Your task to perform on an android device: Add "razer deathadder" to the cart on amazon.com Image 0: 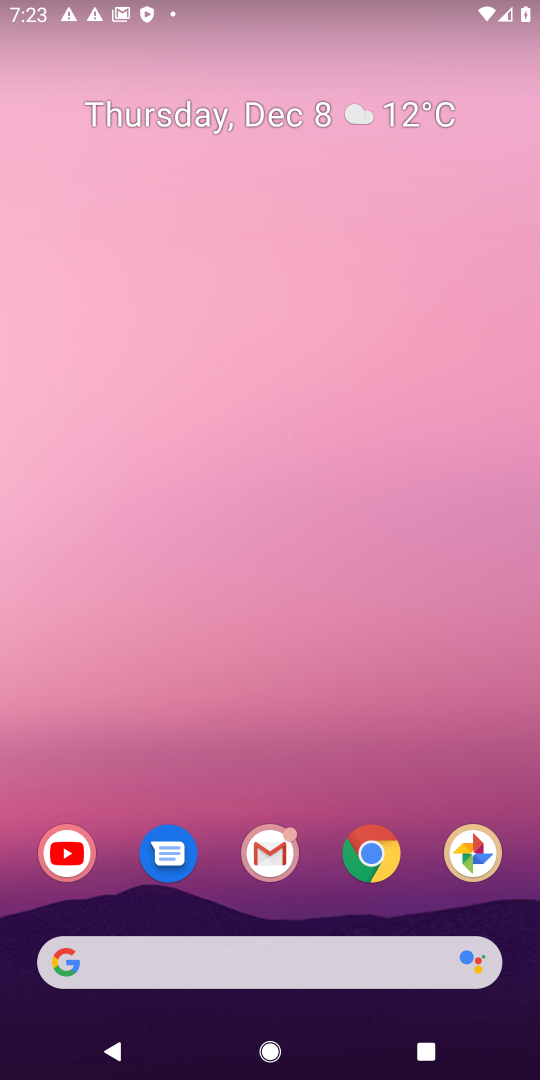
Step 0: click (174, 957)
Your task to perform on an android device: Add "razer deathadder" to the cart on amazon.com Image 1: 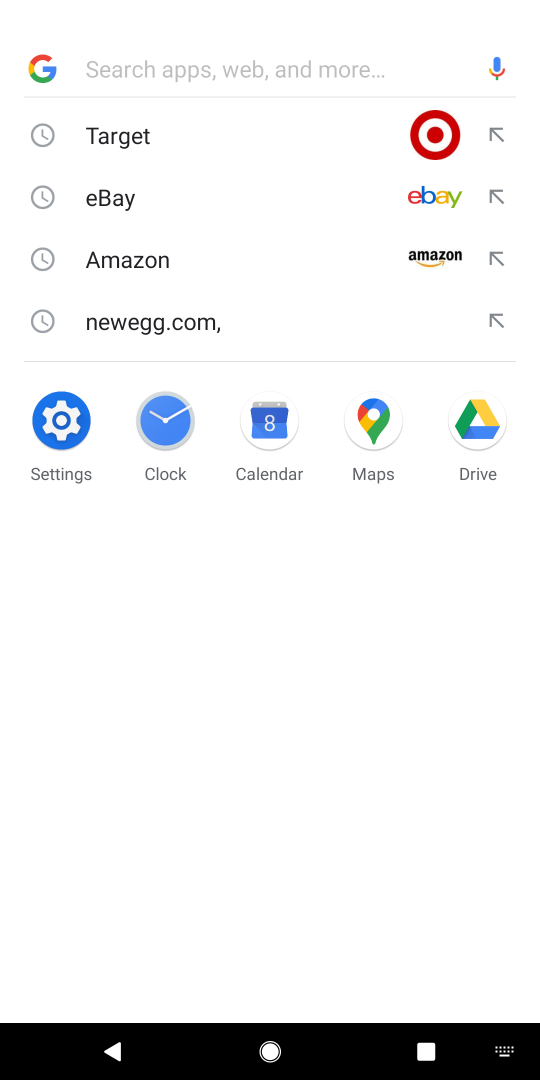
Step 1: click (122, 259)
Your task to perform on an android device: Add "razer deathadder" to the cart on amazon.com Image 2: 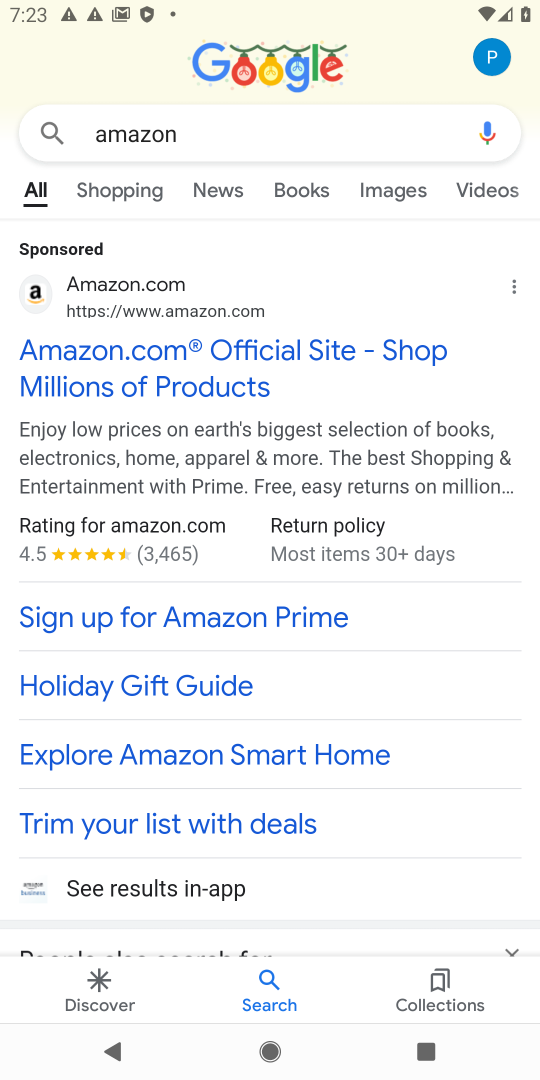
Step 2: click (142, 278)
Your task to perform on an android device: Add "razer deathadder" to the cart on amazon.com Image 3: 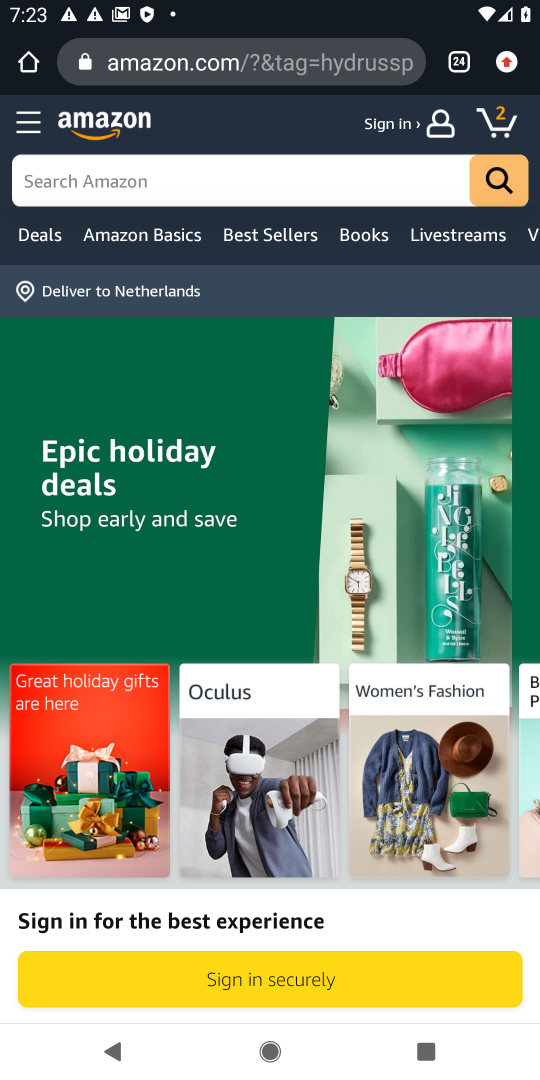
Step 3: click (250, 181)
Your task to perform on an android device: Add "razer deathadder" to the cart on amazon.com Image 4: 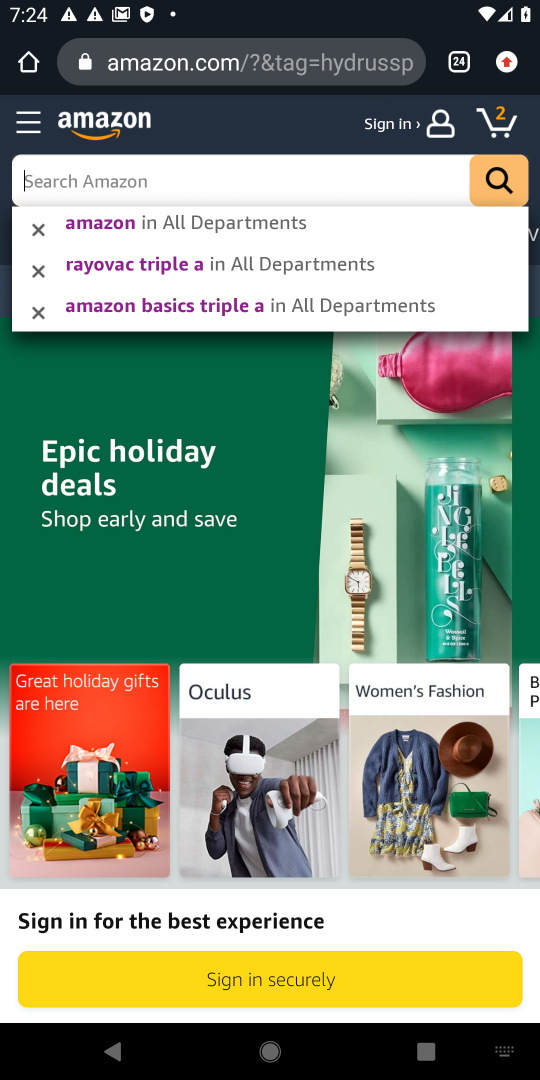
Step 4: type "razer deathadder"
Your task to perform on an android device: Add "razer deathadder" to the cart on amazon.com Image 5: 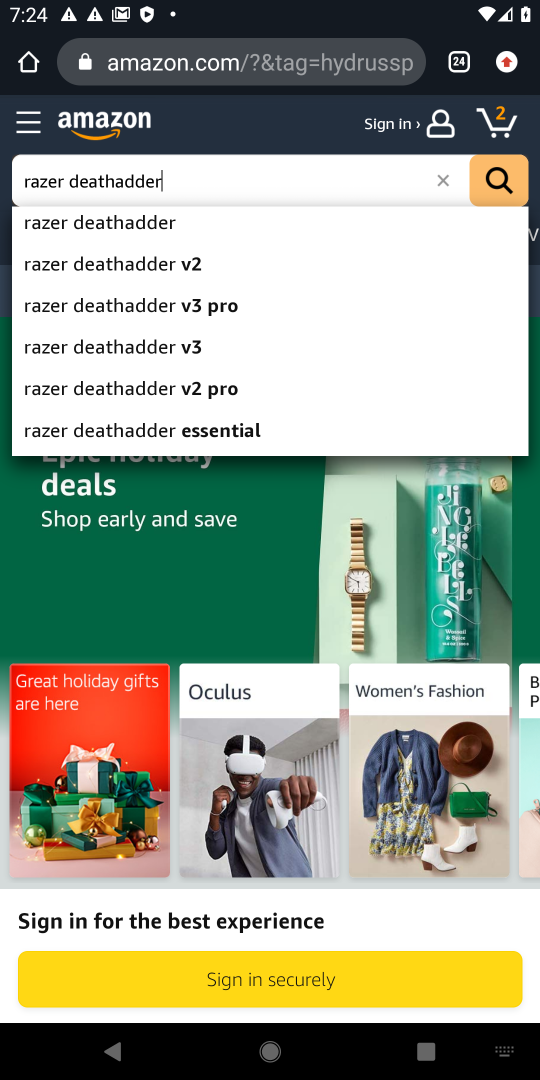
Step 5: click (115, 228)
Your task to perform on an android device: Add "razer deathadder" to the cart on amazon.com Image 6: 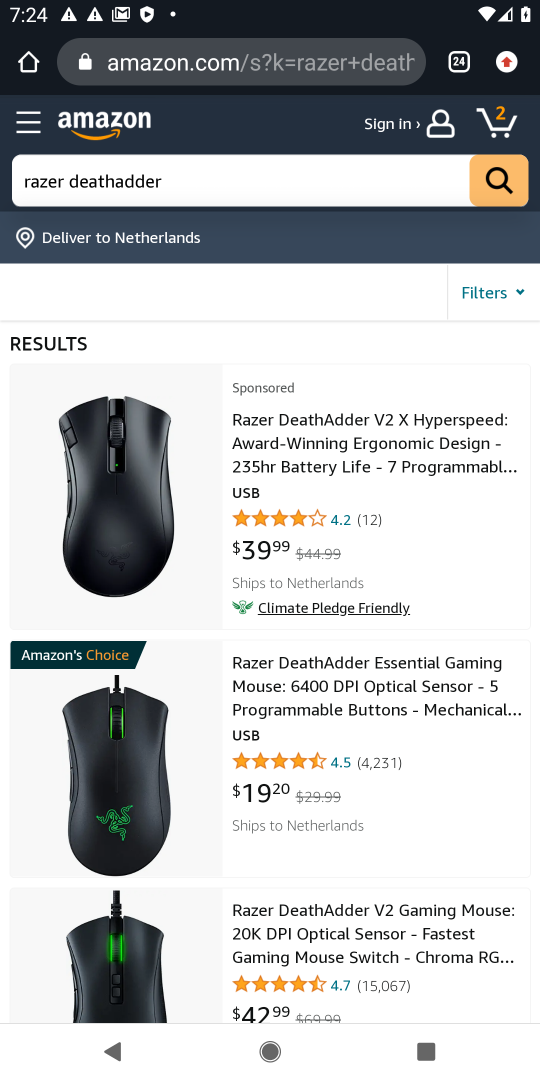
Step 6: click (286, 436)
Your task to perform on an android device: Add "razer deathadder" to the cart on amazon.com Image 7: 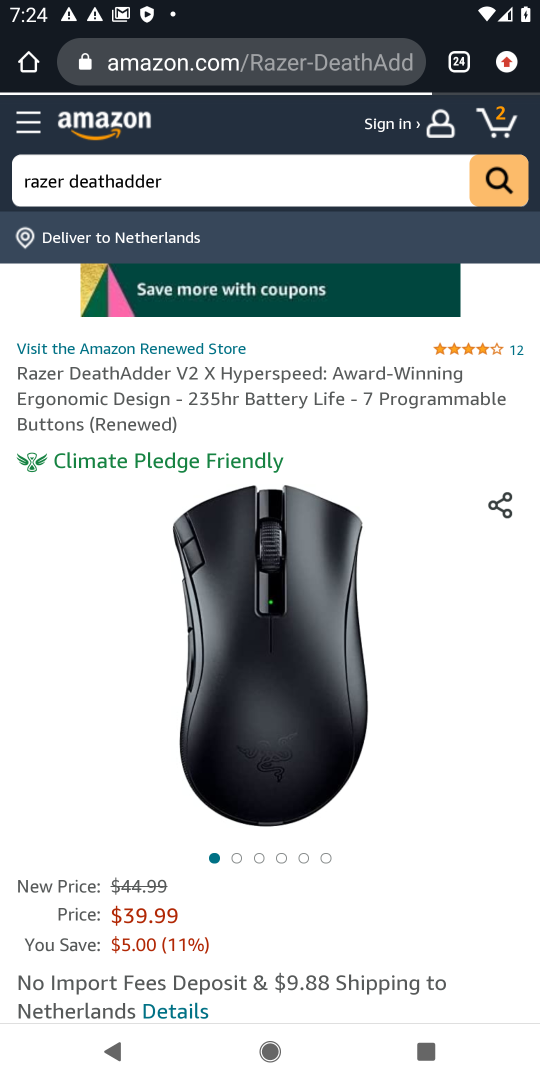
Step 7: drag from (405, 798) to (373, 416)
Your task to perform on an android device: Add "razer deathadder" to the cart on amazon.com Image 8: 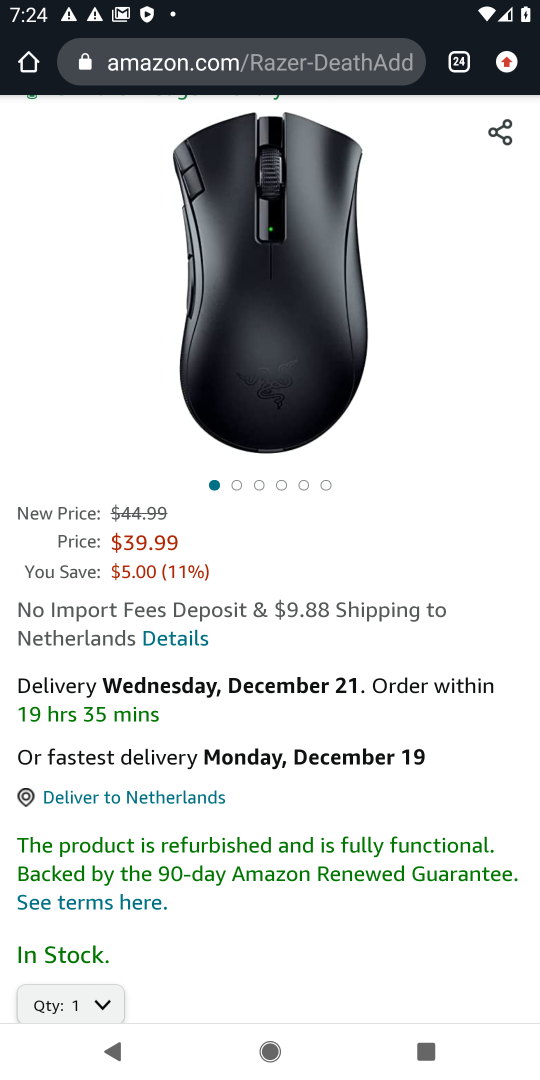
Step 8: drag from (341, 565) to (298, 280)
Your task to perform on an android device: Add "razer deathadder" to the cart on amazon.com Image 9: 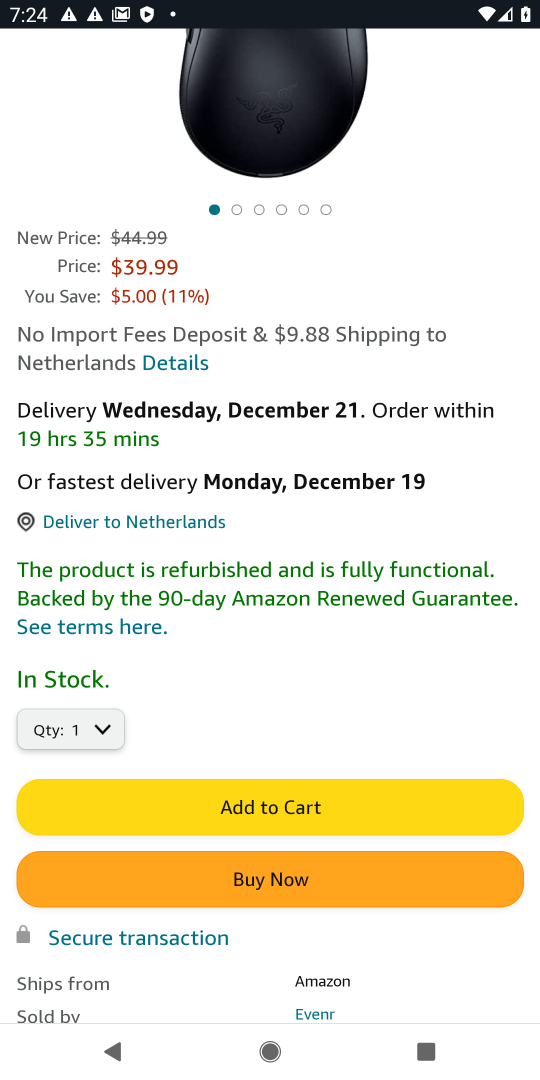
Step 9: click (267, 796)
Your task to perform on an android device: Add "razer deathadder" to the cart on amazon.com Image 10: 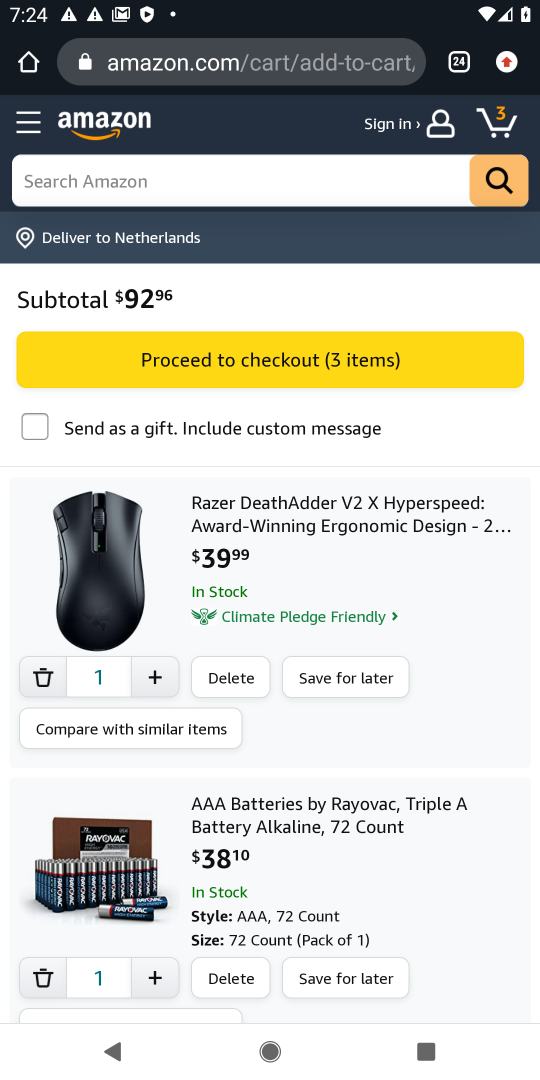
Step 10: task complete